Your task to perform on an android device: Go to notification settings Image 0: 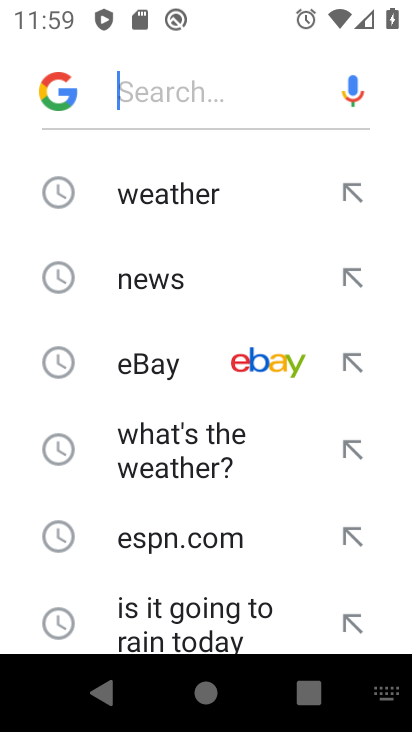
Step 0: press home button
Your task to perform on an android device: Go to notification settings Image 1: 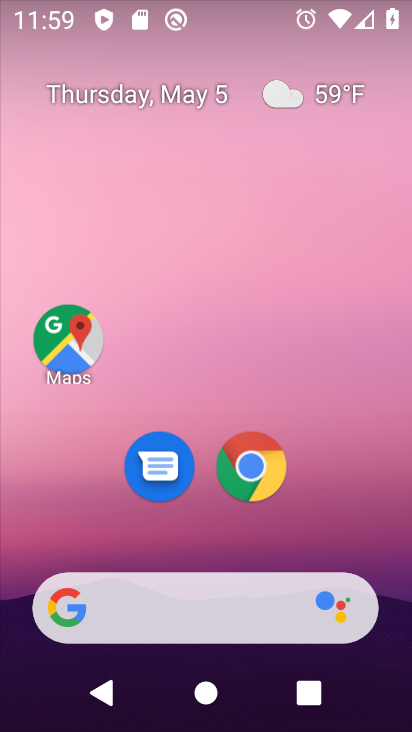
Step 1: drag from (183, 547) to (205, 130)
Your task to perform on an android device: Go to notification settings Image 2: 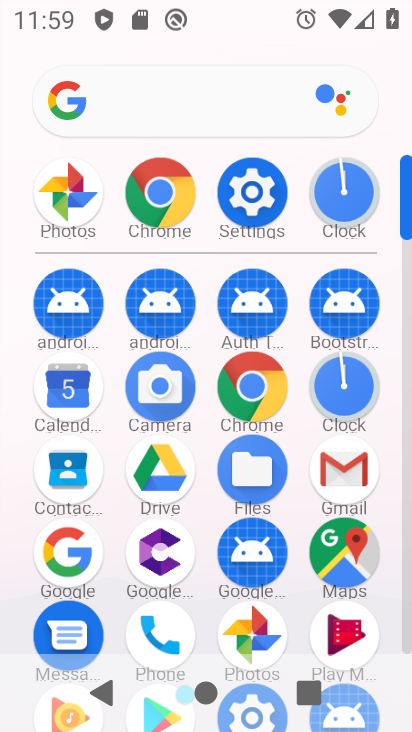
Step 2: click (253, 199)
Your task to perform on an android device: Go to notification settings Image 3: 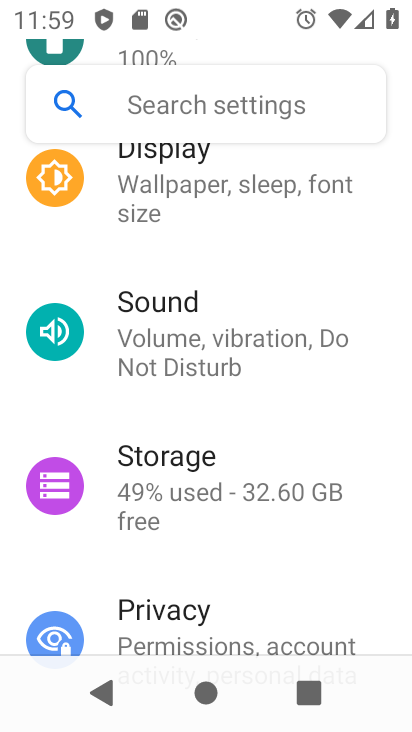
Step 3: drag from (227, 557) to (259, 241)
Your task to perform on an android device: Go to notification settings Image 4: 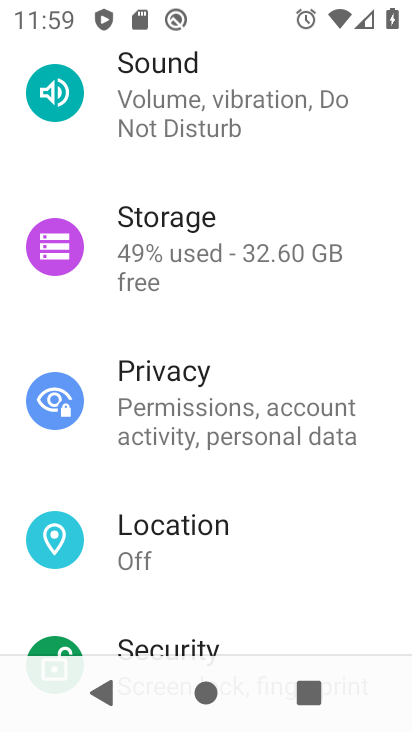
Step 4: drag from (222, 593) to (246, 263)
Your task to perform on an android device: Go to notification settings Image 5: 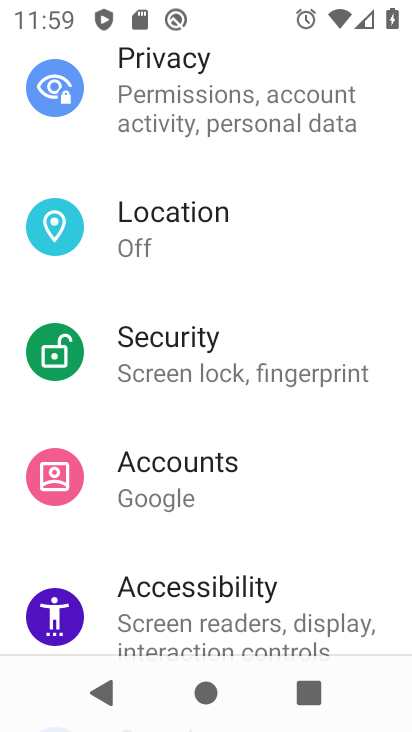
Step 5: drag from (238, 558) to (295, 246)
Your task to perform on an android device: Go to notification settings Image 6: 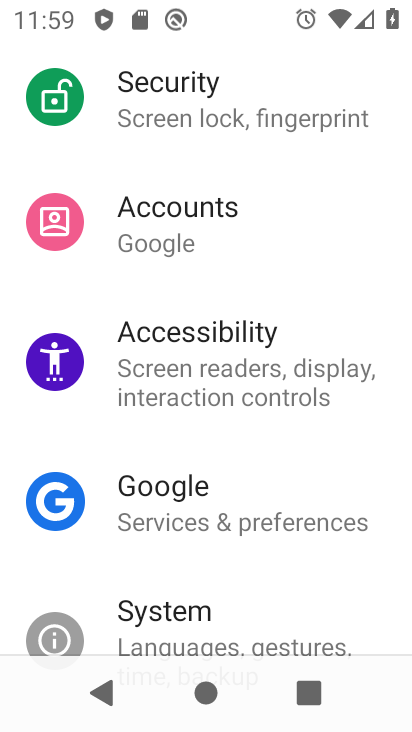
Step 6: drag from (287, 202) to (340, 499)
Your task to perform on an android device: Go to notification settings Image 7: 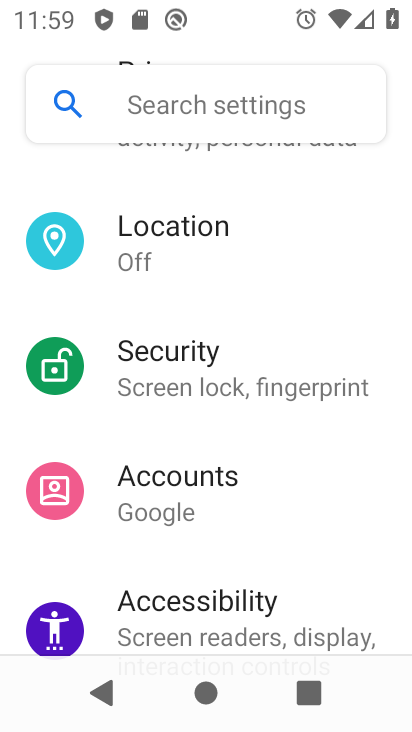
Step 7: drag from (305, 182) to (299, 547)
Your task to perform on an android device: Go to notification settings Image 8: 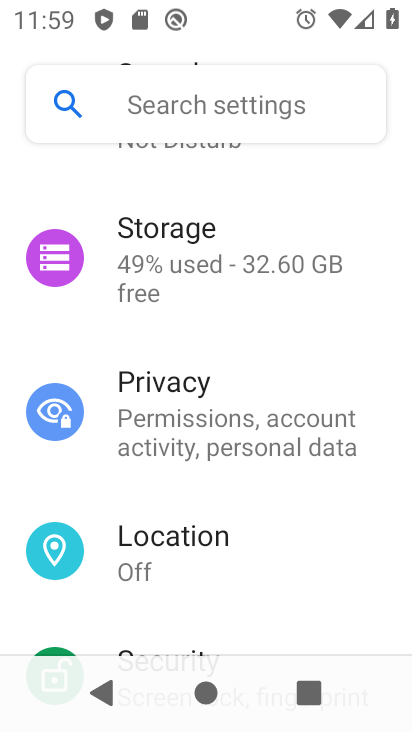
Step 8: drag from (296, 220) to (293, 465)
Your task to perform on an android device: Go to notification settings Image 9: 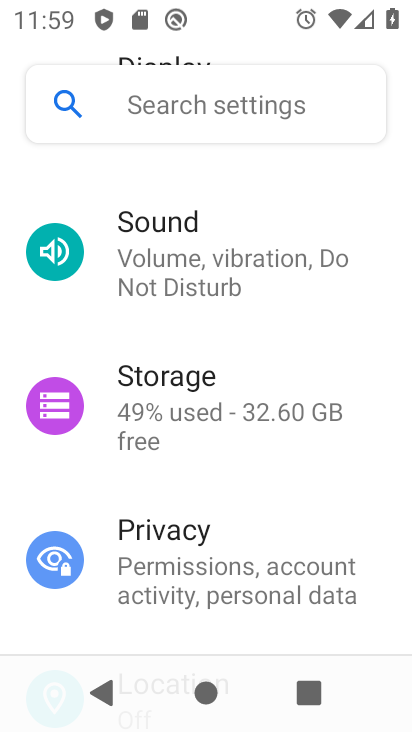
Step 9: drag from (271, 214) to (322, 607)
Your task to perform on an android device: Go to notification settings Image 10: 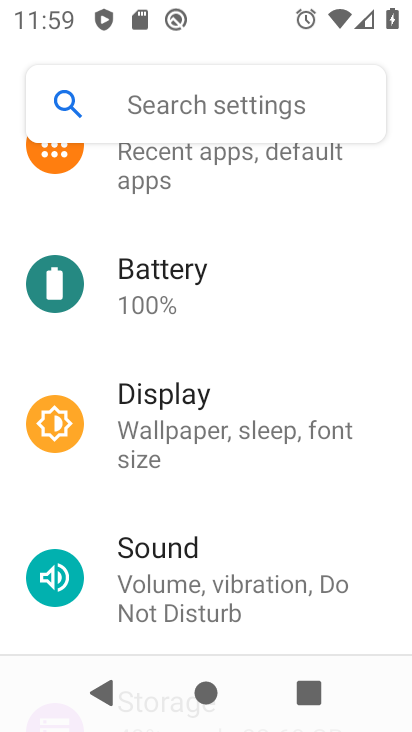
Step 10: drag from (259, 227) to (262, 453)
Your task to perform on an android device: Go to notification settings Image 11: 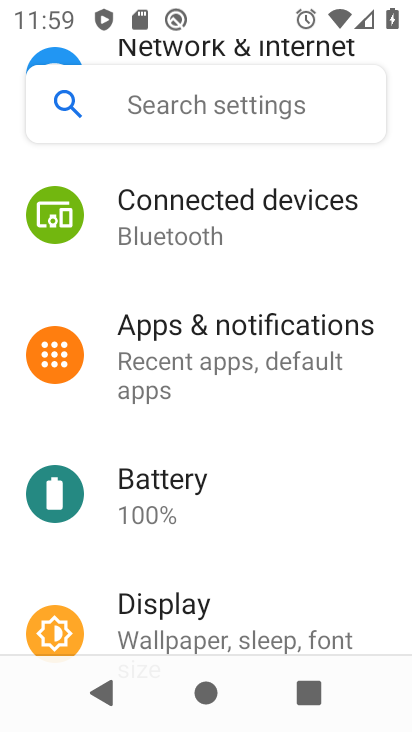
Step 11: click (215, 357)
Your task to perform on an android device: Go to notification settings Image 12: 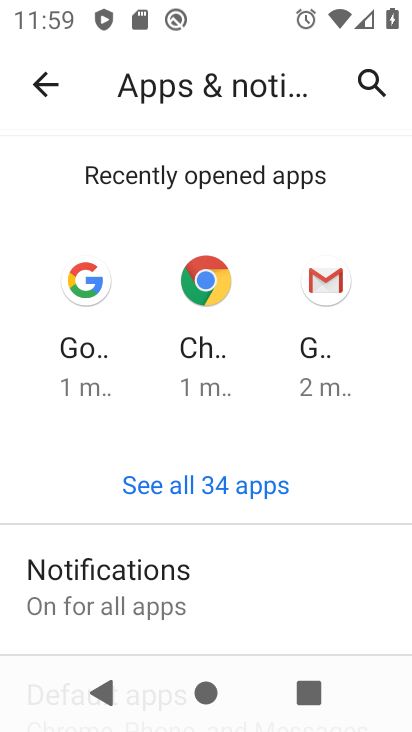
Step 12: click (140, 586)
Your task to perform on an android device: Go to notification settings Image 13: 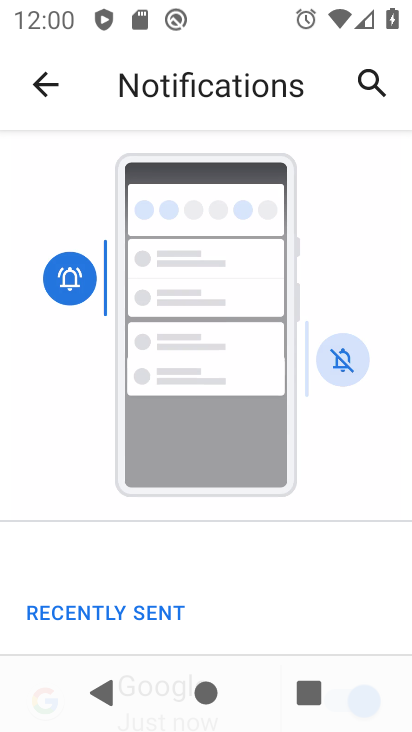
Step 13: task complete